Your task to perform on an android device: toggle pop-ups in chrome Image 0: 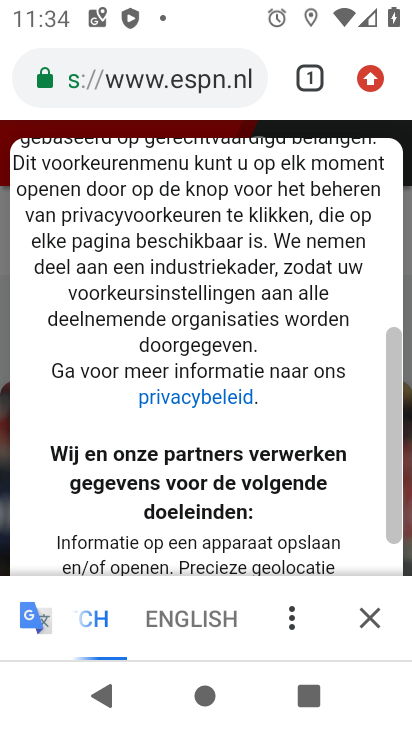
Step 0: press home button
Your task to perform on an android device: toggle pop-ups in chrome Image 1: 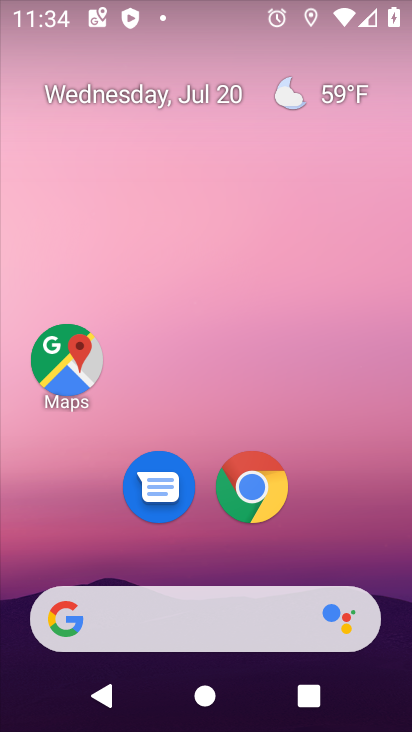
Step 1: drag from (333, 546) to (378, 122)
Your task to perform on an android device: toggle pop-ups in chrome Image 2: 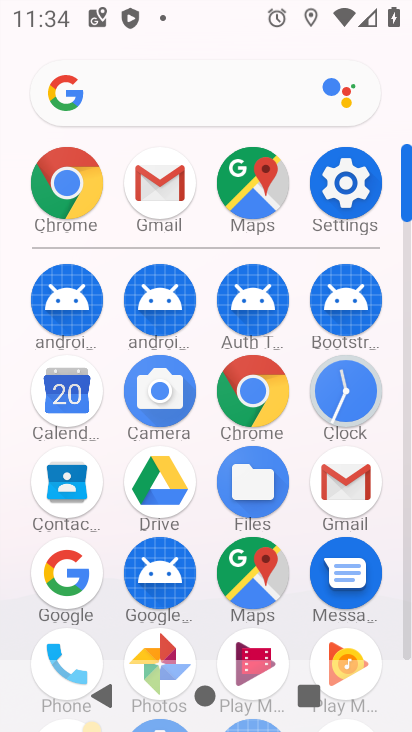
Step 2: click (257, 396)
Your task to perform on an android device: toggle pop-ups in chrome Image 3: 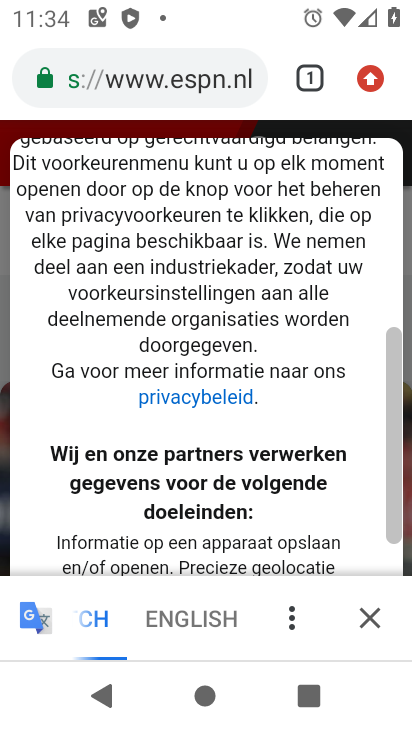
Step 3: click (379, 80)
Your task to perform on an android device: toggle pop-ups in chrome Image 4: 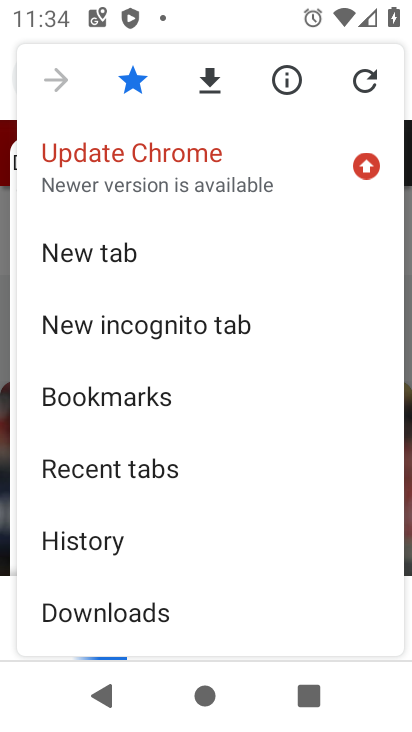
Step 4: drag from (320, 499) to (334, 400)
Your task to perform on an android device: toggle pop-ups in chrome Image 5: 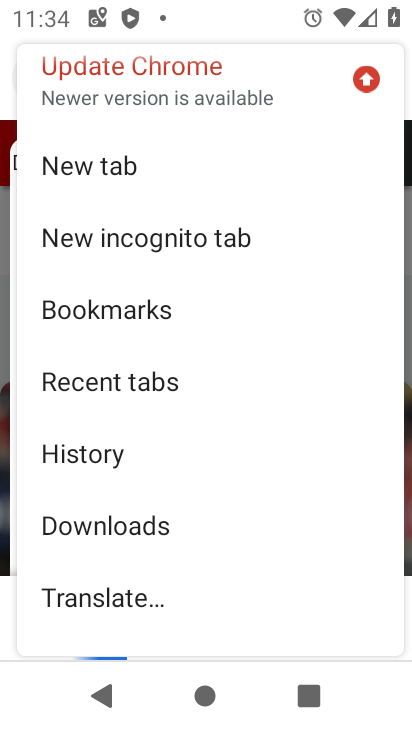
Step 5: drag from (306, 525) to (322, 442)
Your task to perform on an android device: toggle pop-ups in chrome Image 6: 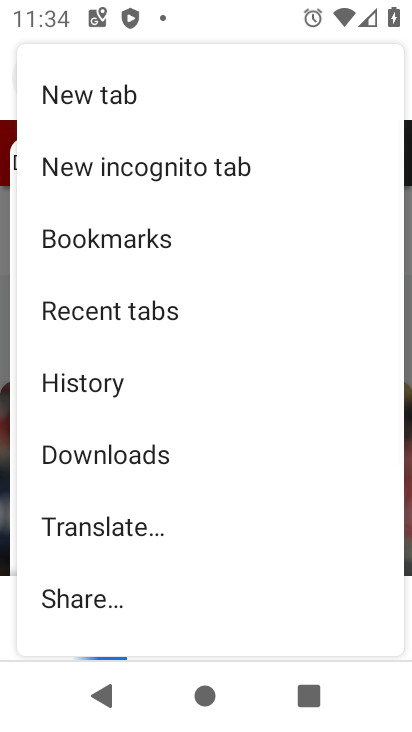
Step 6: drag from (304, 552) to (310, 447)
Your task to perform on an android device: toggle pop-ups in chrome Image 7: 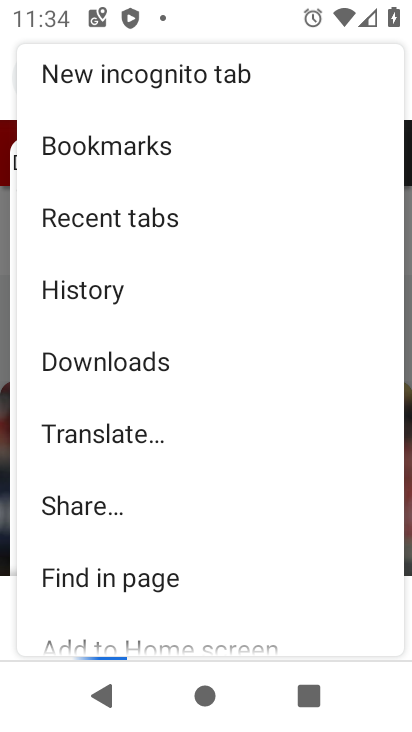
Step 7: drag from (325, 559) to (335, 460)
Your task to perform on an android device: toggle pop-ups in chrome Image 8: 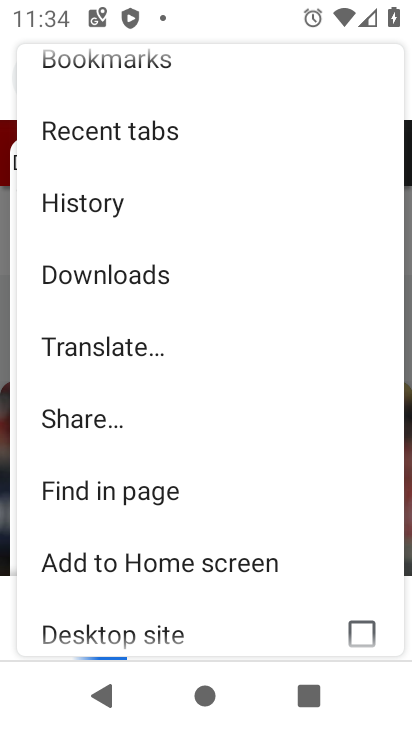
Step 8: drag from (327, 573) to (330, 364)
Your task to perform on an android device: toggle pop-ups in chrome Image 9: 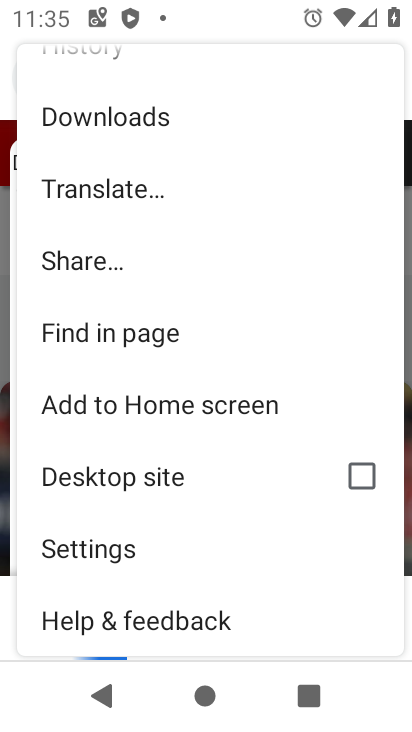
Step 9: click (183, 548)
Your task to perform on an android device: toggle pop-ups in chrome Image 10: 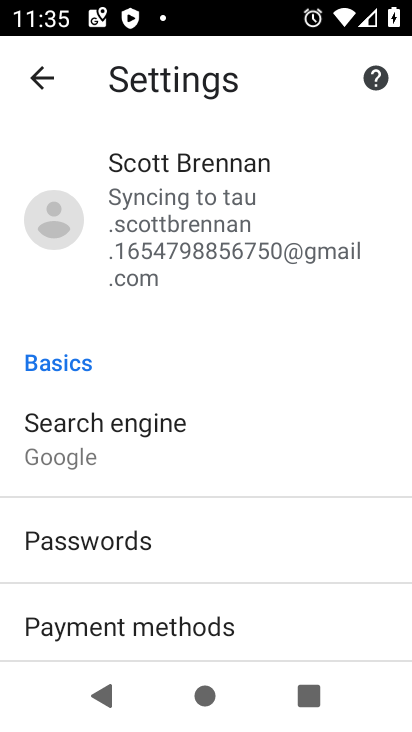
Step 10: drag from (329, 560) to (337, 484)
Your task to perform on an android device: toggle pop-ups in chrome Image 11: 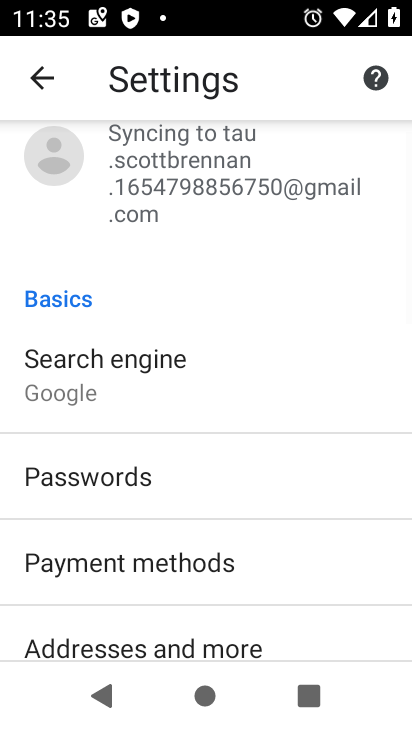
Step 11: drag from (341, 574) to (349, 490)
Your task to perform on an android device: toggle pop-ups in chrome Image 12: 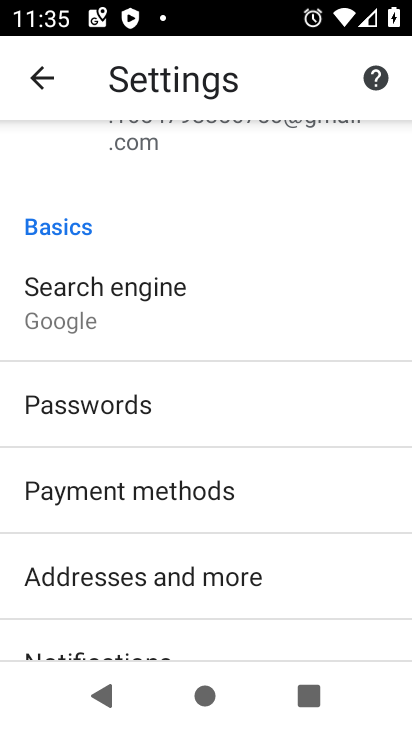
Step 12: drag from (348, 588) to (348, 493)
Your task to perform on an android device: toggle pop-ups in chrome Image 13: 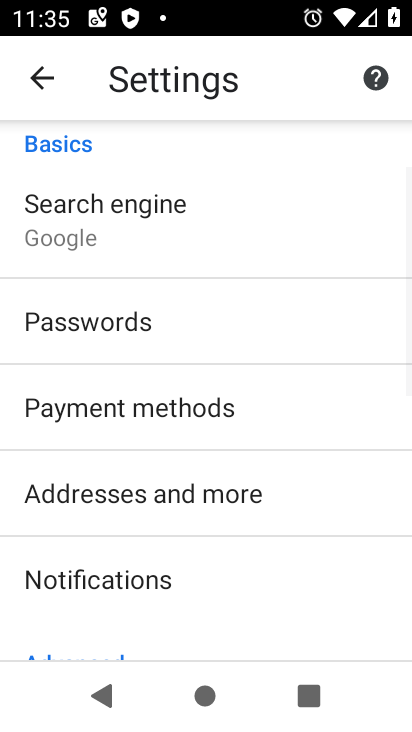
Step 13: drag from (323, 579) to (331, 486)
Your task to perform on an android device: toggle pop-ups in chrome Image 14: 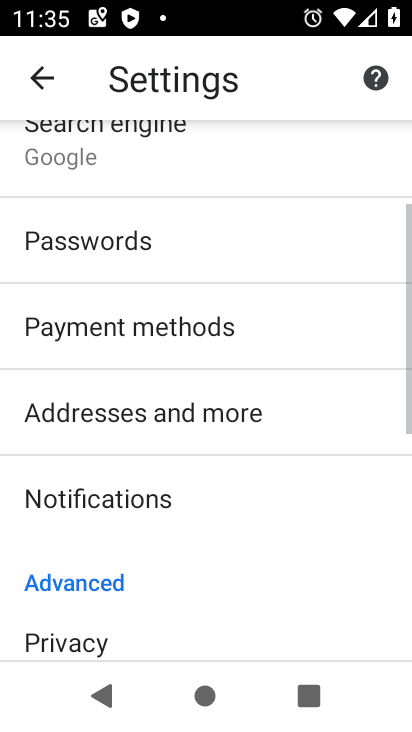
Step 14: drag from (326, 576) to (328, 472)
Your task to perform on an android device: toggle pop-ups in chrome Image 15: 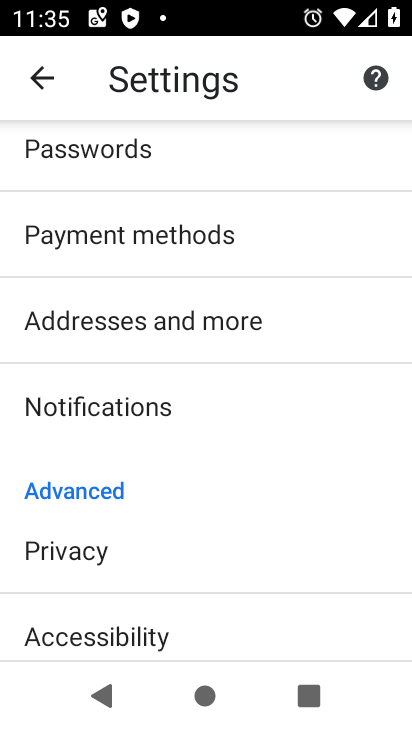
Step 15: drag from (320, 588) to (332, 456)
Your task to perform on an android device: toggle pop-ups in chrome Image 16: 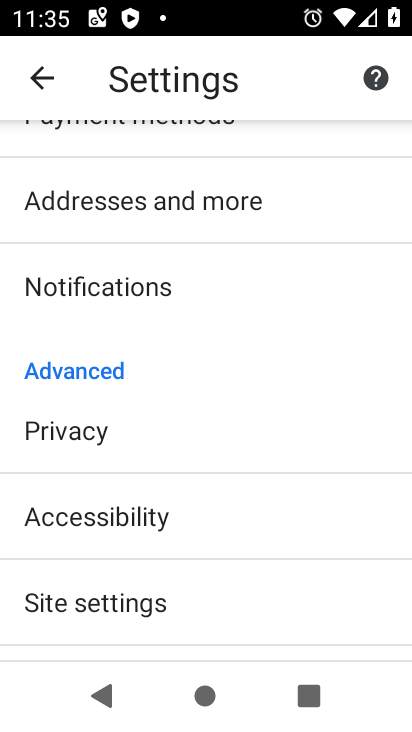
Step 16: drag from (340, 584) to (348, 430)
Your task to perform on an android device: toggle pop-ups in chrome Image 17: 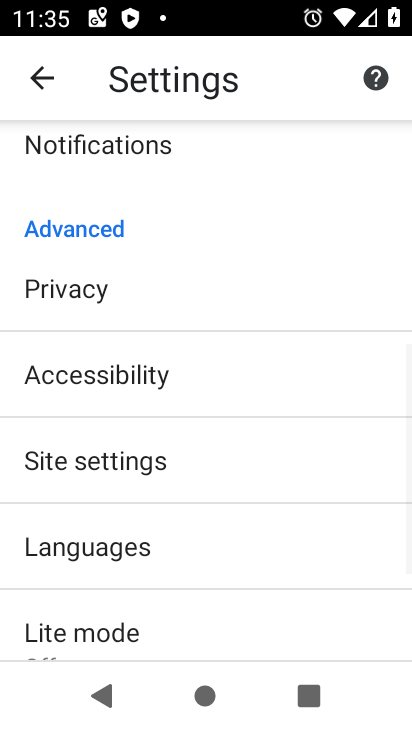
Step 17: click (338, 469)
Your task to perform on an android device: toggle pop-ups in chrome Image 18: 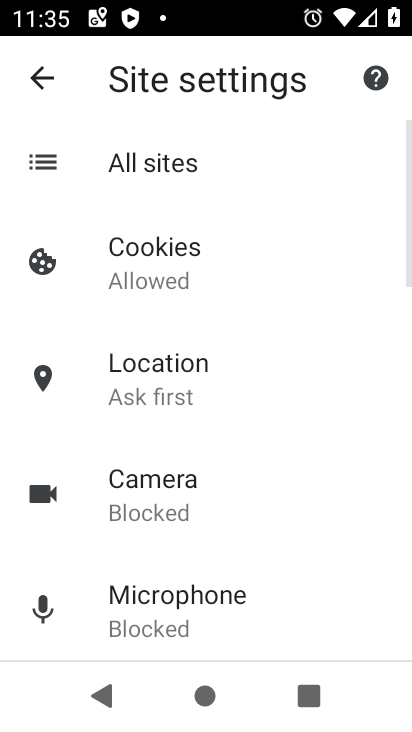
Step 18: drag from (337, 549) to (338, 450)
Your task to perform on an android device: toggle pop-ups in chrome Image 19: 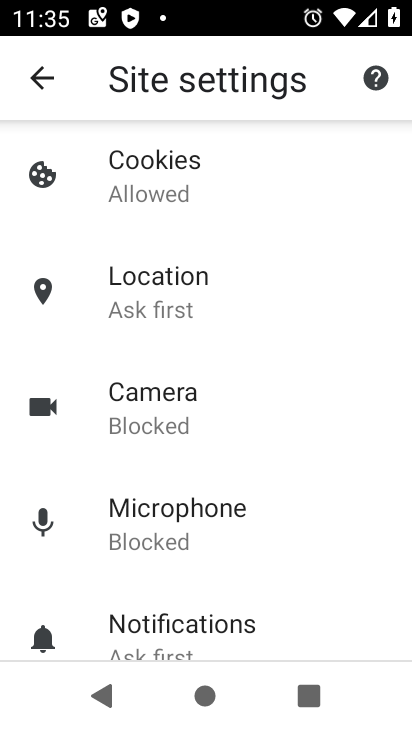
Step 19: drag from (334, 567) to (332, 452)
Your task to perform on an android device: toggle pop-ups in chrome Image 20: 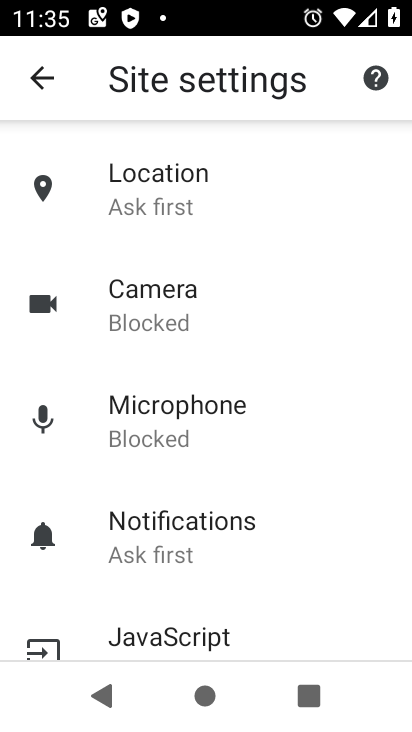
Step 20: drag from (335, 560) to (339, 456)
Your task to perform on an android device: toggle pop-ups in chrome Image 21: 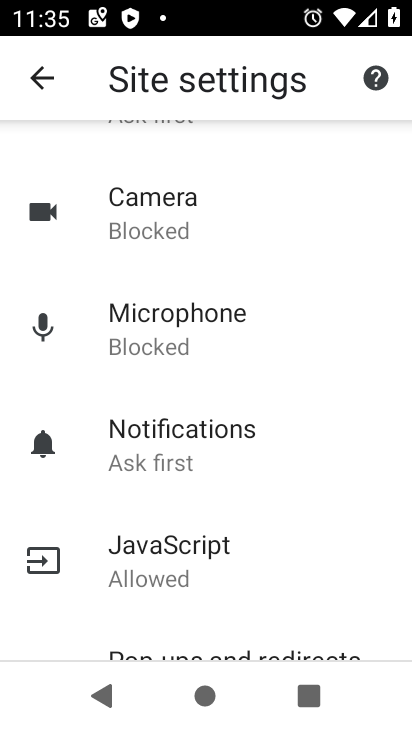
Step 21: drag from (343, 589) to (340, 448)
Your task to perform on an android device: toggle pop-ups in chrome Image 22: 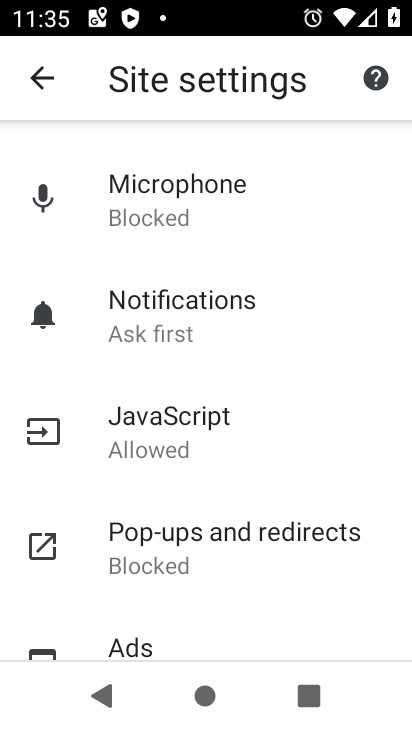
Step 22: drag from (341, 597) to (346, 471)
Your task to perform on an android device: toggle pop-ups in chrome Image 23: 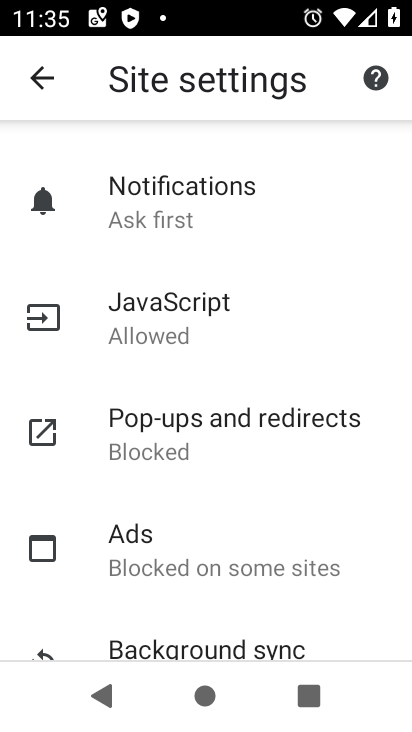
Step 23: click (346, 466)
Your task to perform on an android device: toggle pop-ups in chrome Image 24: 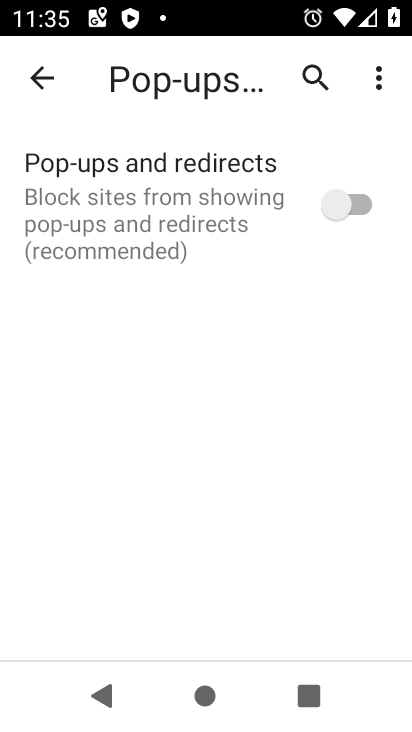
Step 24: click (331, 211)
Your task to perform on an android device: toggle pop-ups in chrome Image 25: 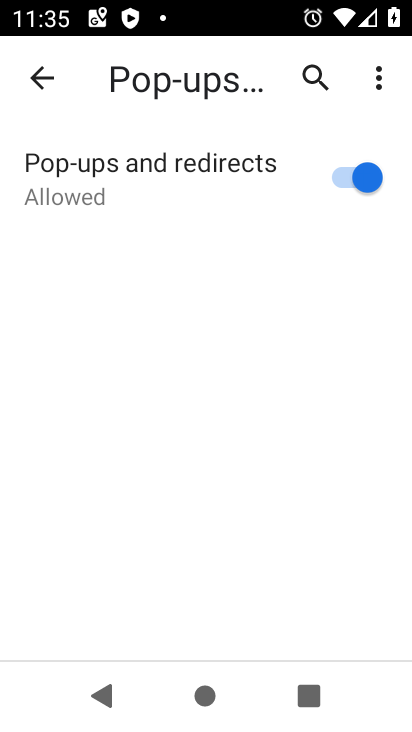
Step 25: task complete